Your task to perform on an android device: turn off location history Image 0: 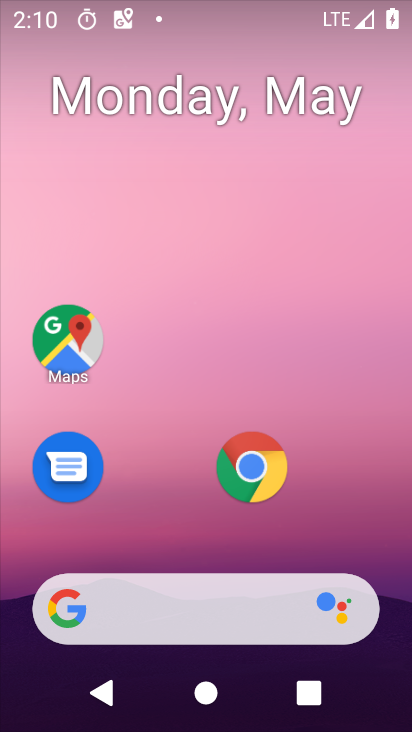
Step 0: drag from (185, 562) to (203, 269)
Your task to perform on an android device: turn off location history Image 1: 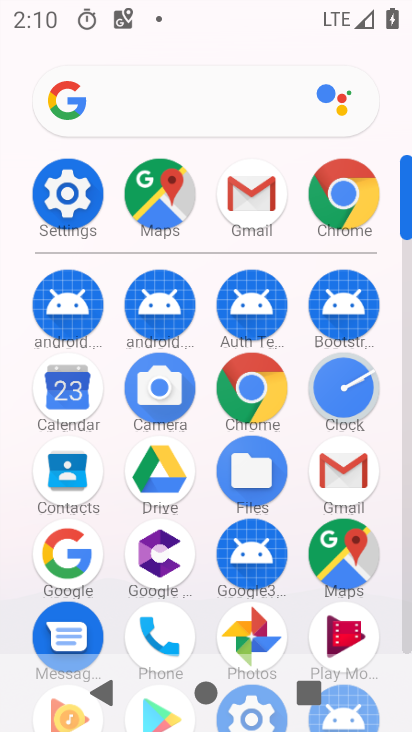
Step 1: click (57, 203)
Your task to perform on an android device: turn off location history Image 2: 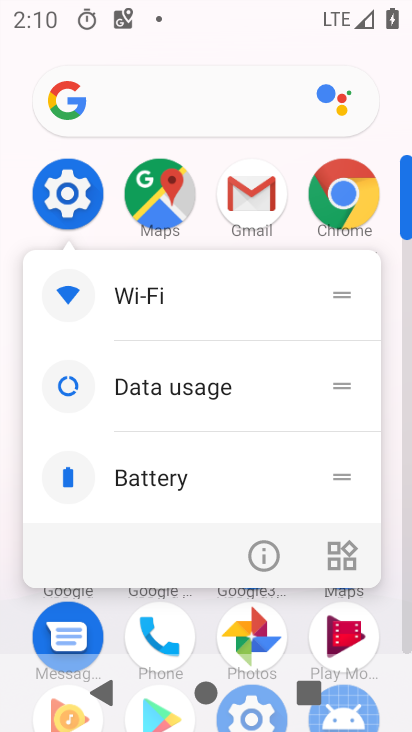
Step 2: click (254, 553)
Your task to perform on an android device: turn off location history Image 3: 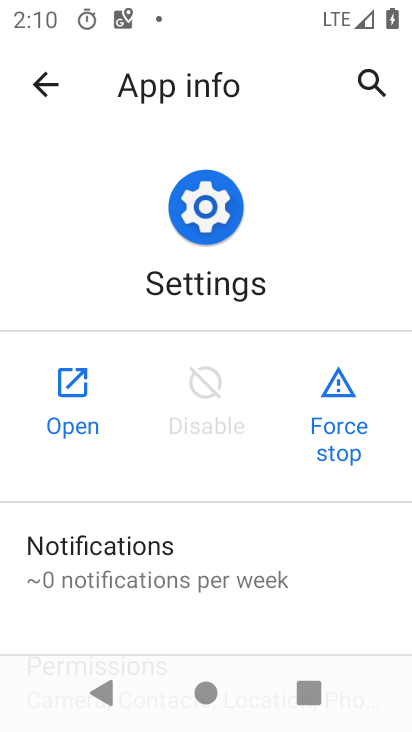
Step 3: click (61, 414)
Your task to perform on an android device: turn off location history Image 4: 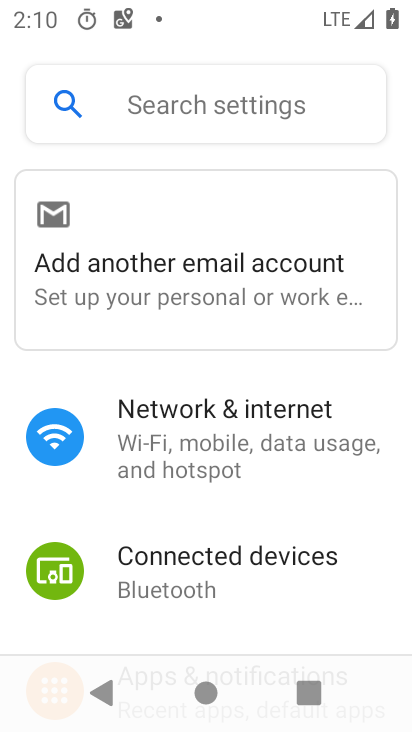
Step 4: drag from (197, 573) to (401, 101)
Your task to perform on an android device: turn off location history Image 5: 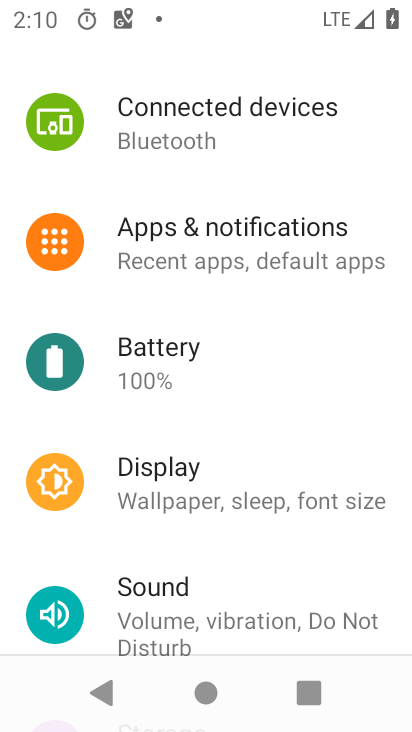
Step 5: drag from (185, 465) to (277, 65)
Your task to perform on an android device: turn off location history Image 6: 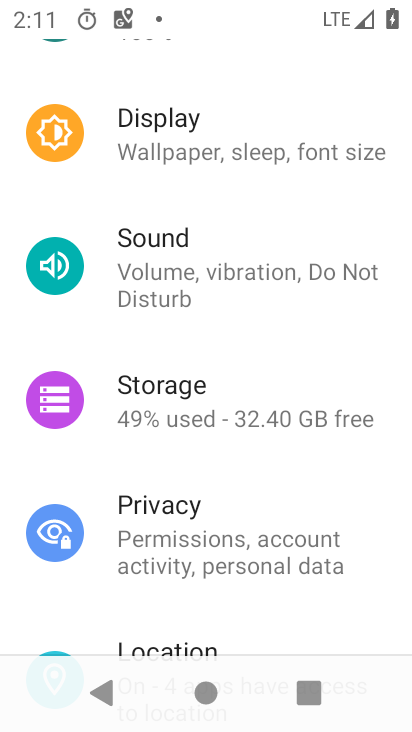
Step 6: drag from (221, 553) to (239, 160)
Your task to perform on an android device: turn off location history Image 7: 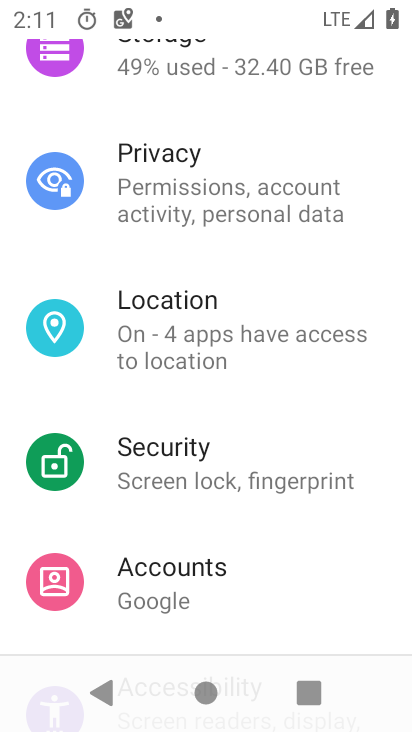
Step 7: click (215, 342)
Your task to perform on an android device: turn off location history Image 8: 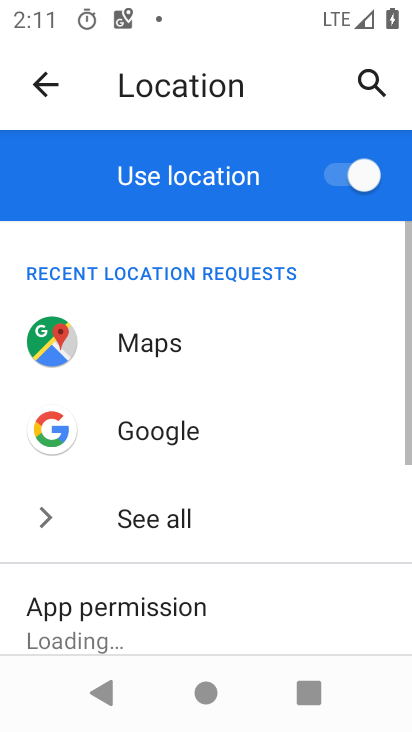
Step 8: drag from (246, 473) to (292, 161)
Your task to perform on an android device: turn off location history Image 9: 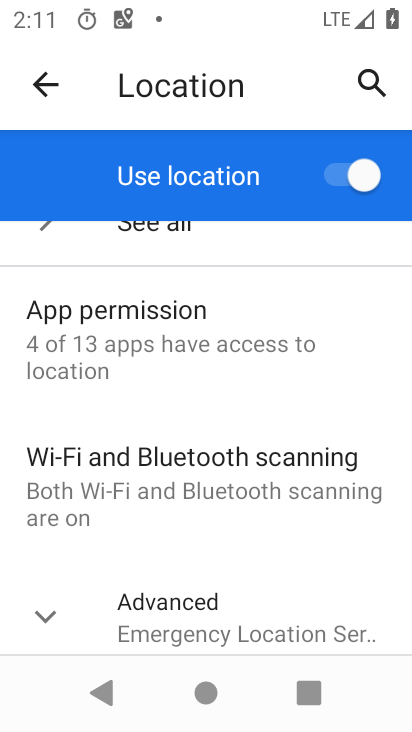
Step 9: click (173, 605)
Your task to perform on an android device: turn off location history Image 10: 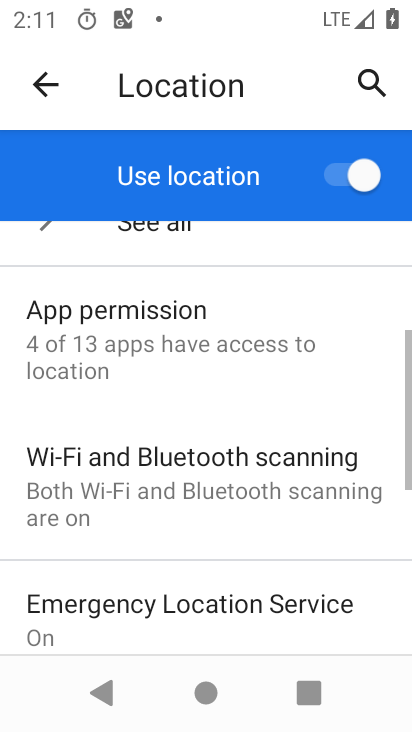
Step 10: drag from (177, 601) to (252, 187)
Your task to perform on an android device: turn off location history Image 11: 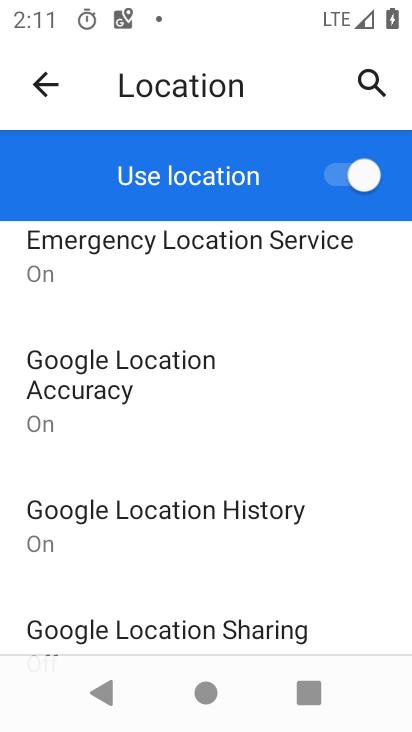
Step 11: click (172, 514)
Your task to perform on an android device: turn off location history Image 12: 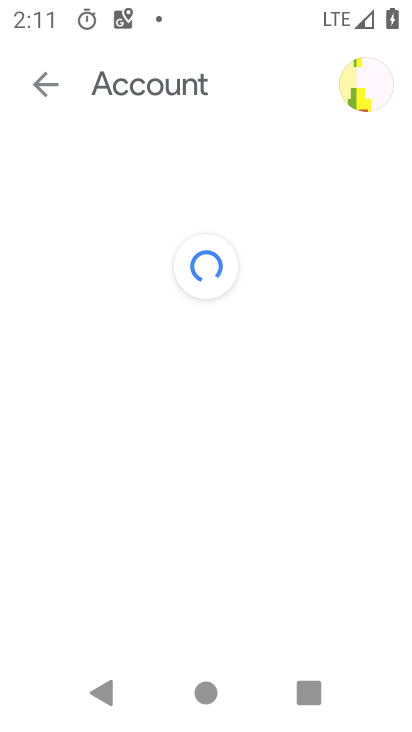
Step 12: task complete